Your task to perform on an android device: delete browsing data in the chrome app Image 0: 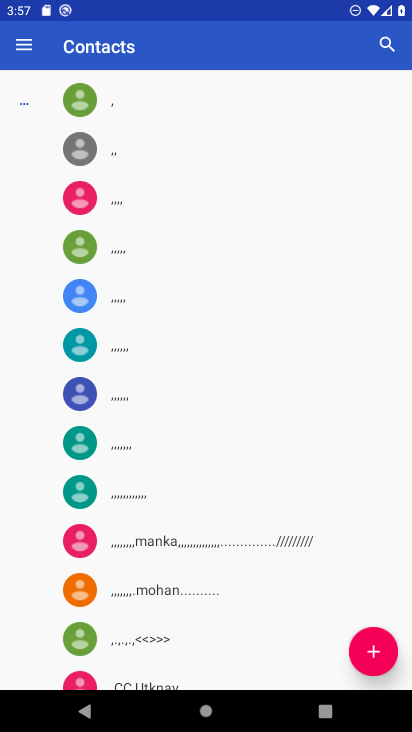
Step 0: click (137, 595)
Your task to perform on an android device: delete browsing data in the chrome app Image 1: 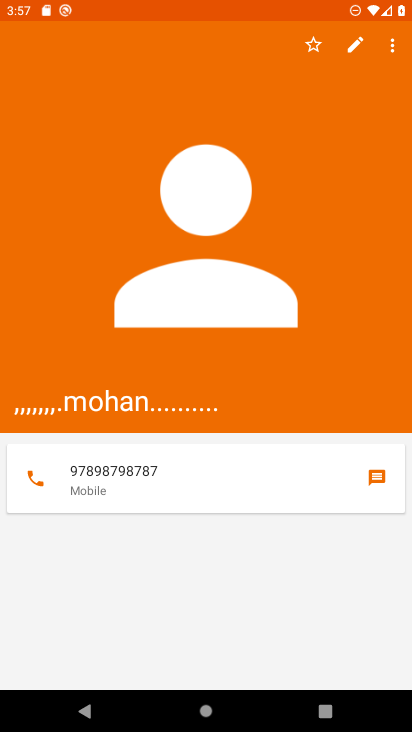
Step 1: press home button
Your task to perform on an android device: delete browsing data in the chrome app Image 2: 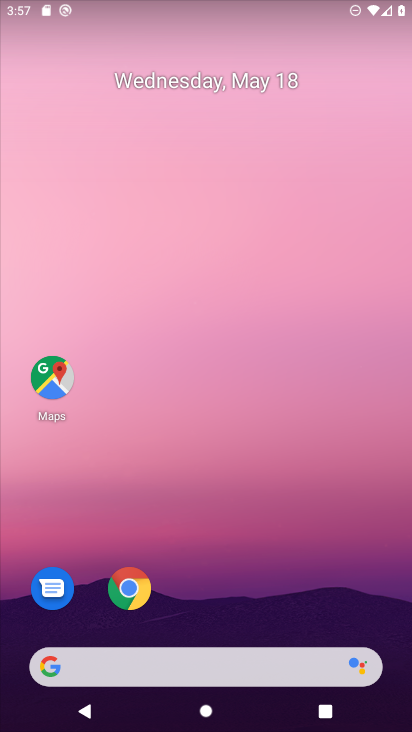
Step 2: click (106, 598)
Your task to perform on an android device: delete browsing data in the chrome app Image 3: 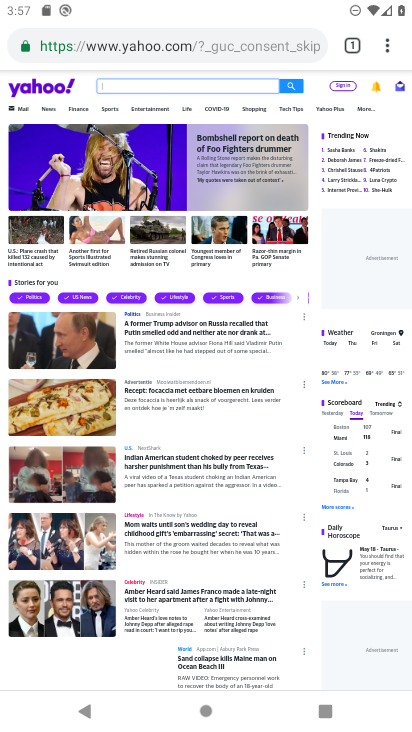
Step 3: click (392, 47)
Your task to perform on an android device: delete browsing data in the chrome app Image 4: 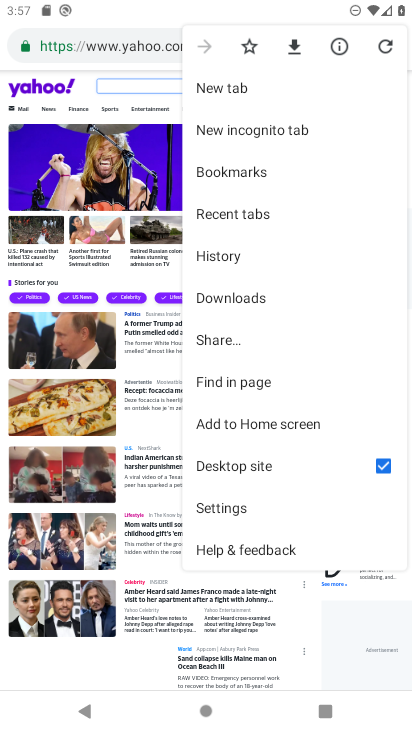
Step 4: click (274, 501)
Your task to perform on an android device: delete browsing data in the chrome app Image 5: 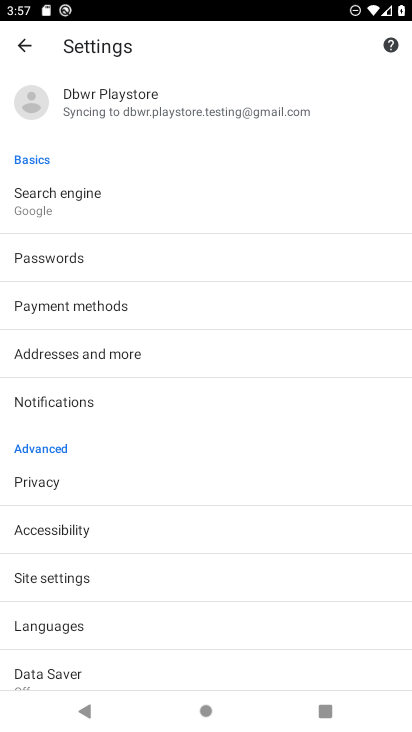
Step 5: click (35, 52)
Your task to perform on an android device: delete browsing data in the chrome app Image 6: 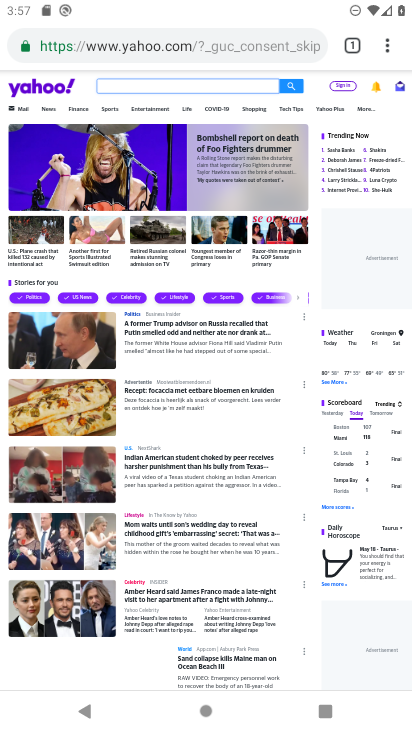
Step 6: click (377, 53)
Your task to perform on an android device: delete browsing data in the chrome app Image 7: 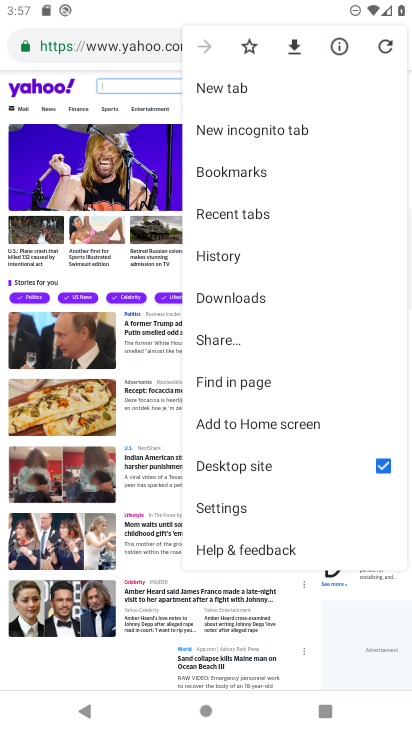
Step 7: click (264, 253)
Your task to perform on an android device: delete browsing data in the chrome app Image 8: 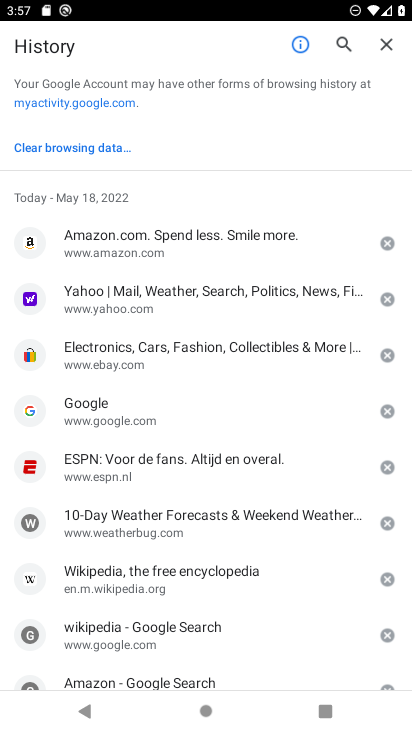
Step 8: click (87, 147)
Your task to perform on an android device: delete browsing data in the chrome app Image 9: 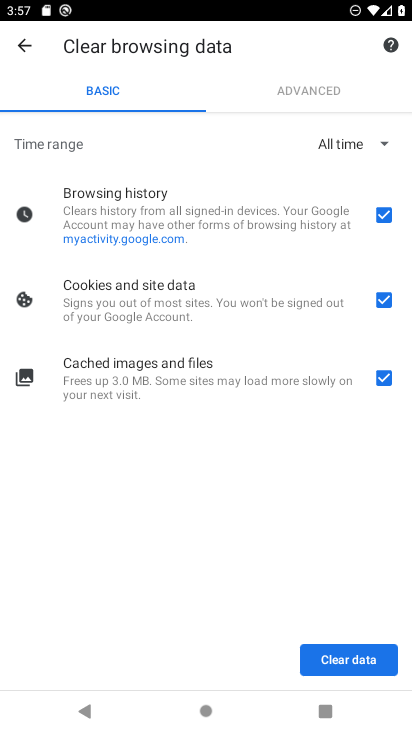
Step 9: click (335, 664)
Your task to perform on an android device: delete browsing data in the chrome app Image 10: 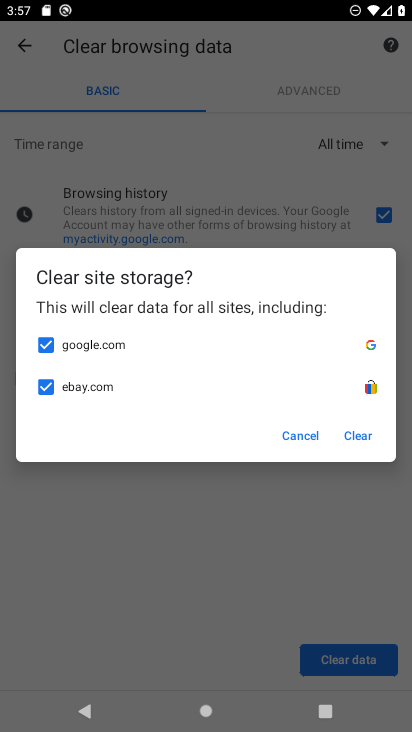
Step 10: click (364, 434)
Your task to perform on an android device: delete browsing data in the chrome app Image 11: 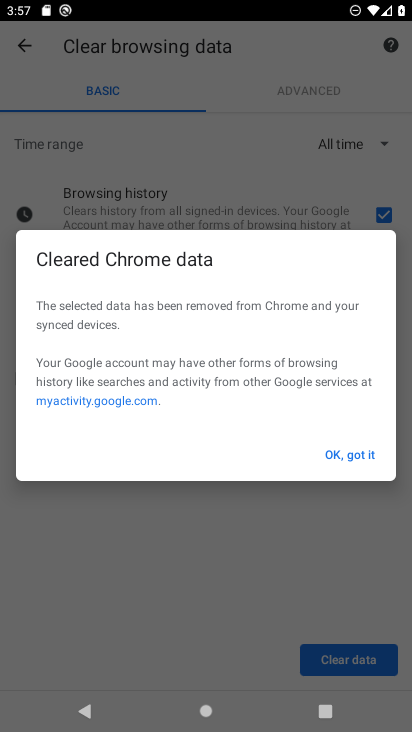
Step 11: task complete